Your task to perform on an android device: Clear all items from cart on amazon.com. Search for alienware area 51 on amazon.com, select the first entry, and add it to the cart. Image 0: 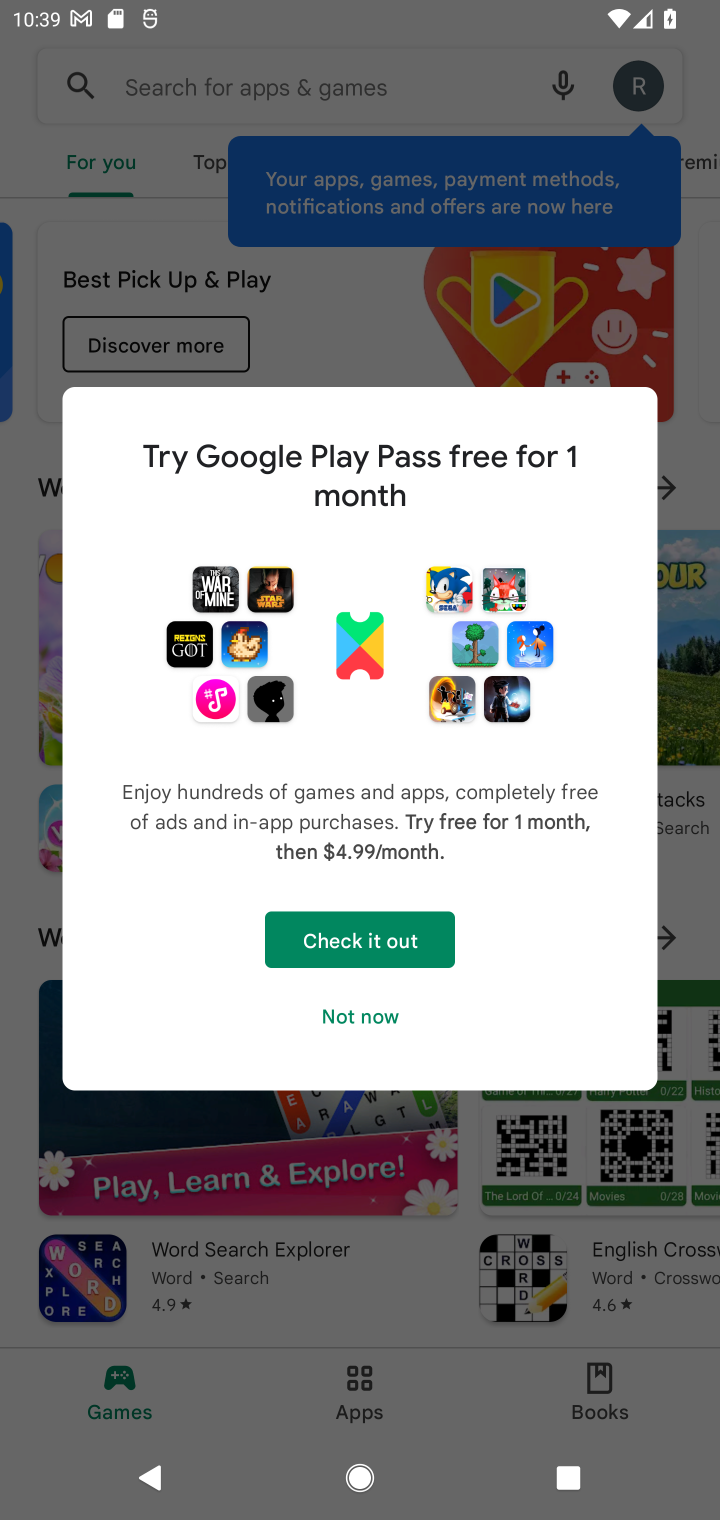
Step 0: press home button
Your task to perform on an android device: Clear all items from cart on amazon.com. Search for alienware area 51 on amazon.com, select the first entry, and add it to the cart. Image 1: 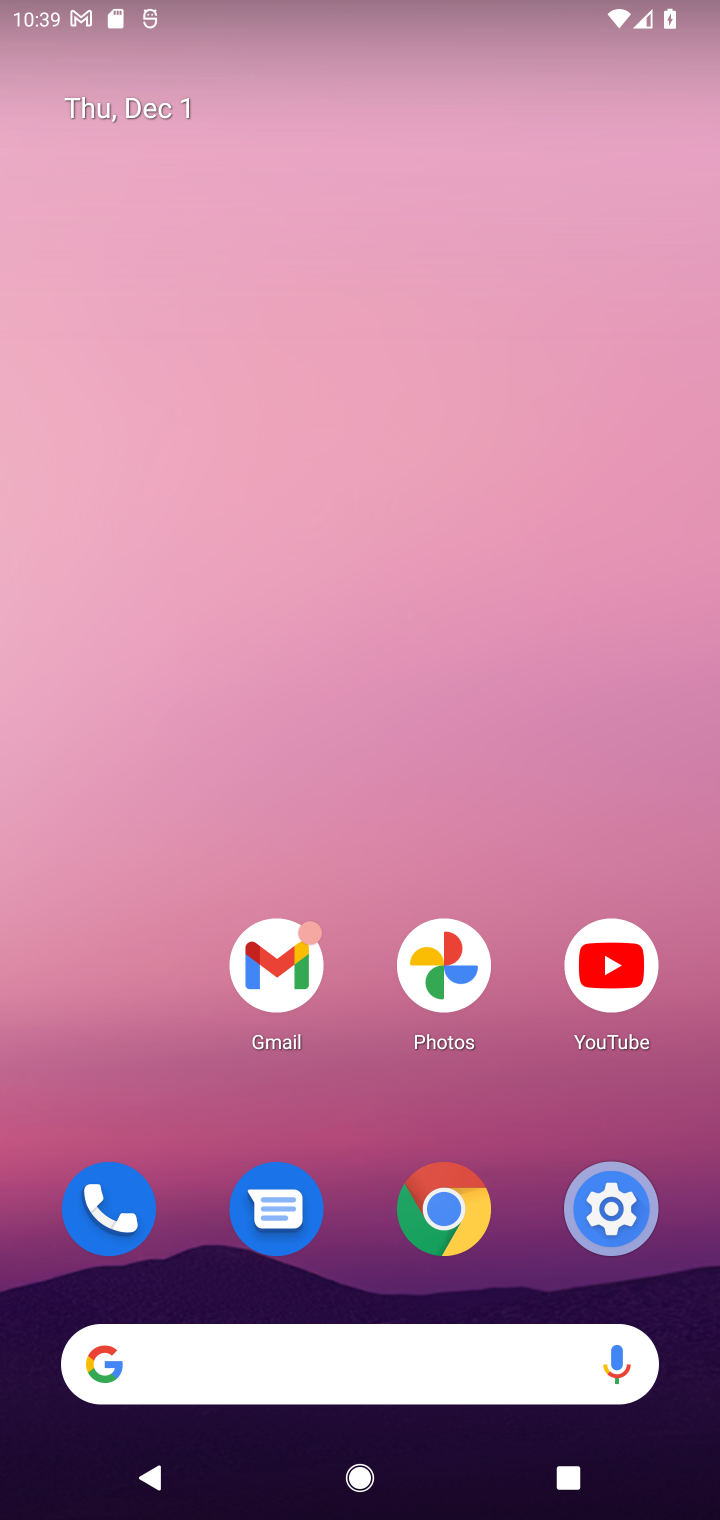
Step 1: click (466, 1199)
Your task to perform on an android device: Clear all items from cart on amazon.com. Search for alienware area 51 on amazon.com, select the first entry, and add it to the cart. Image 2: 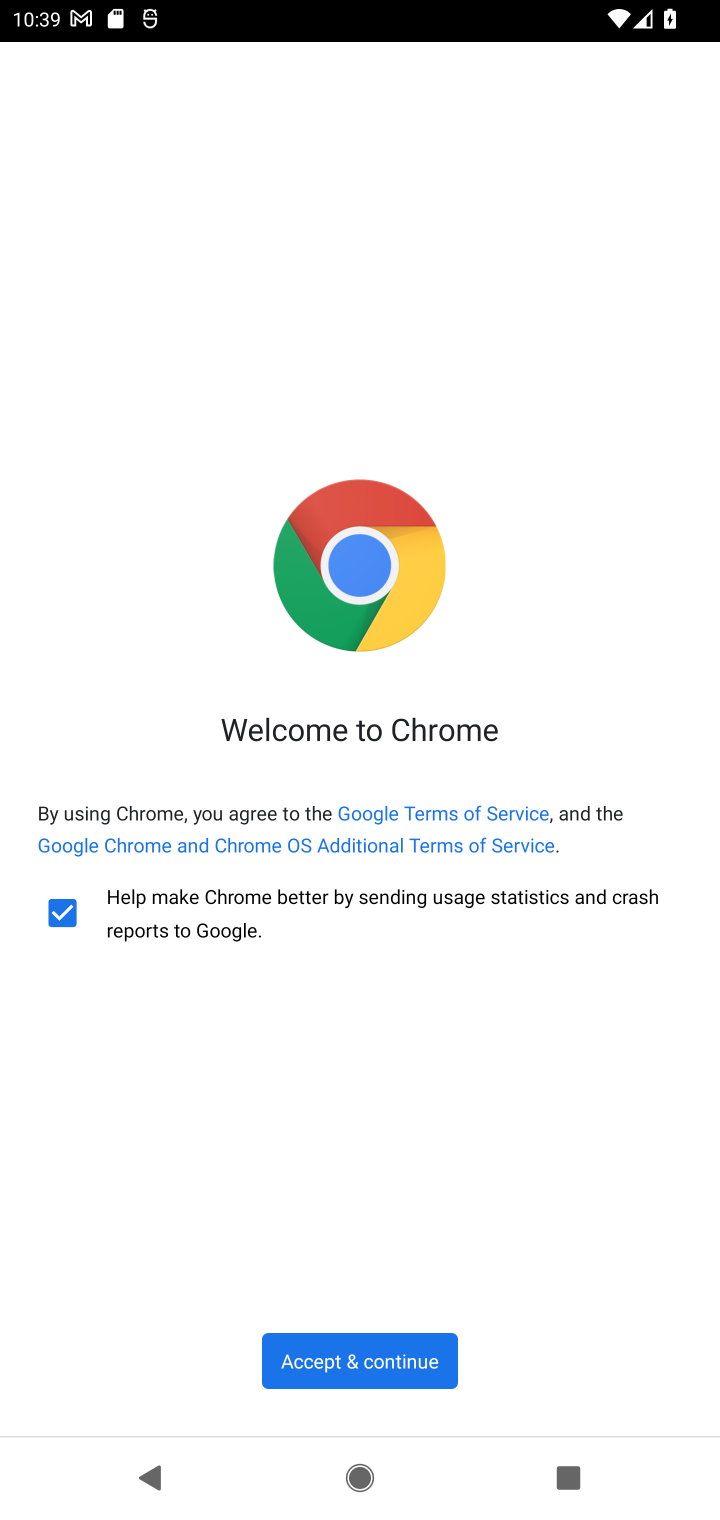
Step 2: click (366, 1358)
Your task to perform on an android device: Clear all items from cart on amazon.com. Search for alienware area 51 on amazon.com, select the first entry, and add it to the cart. Image 3: 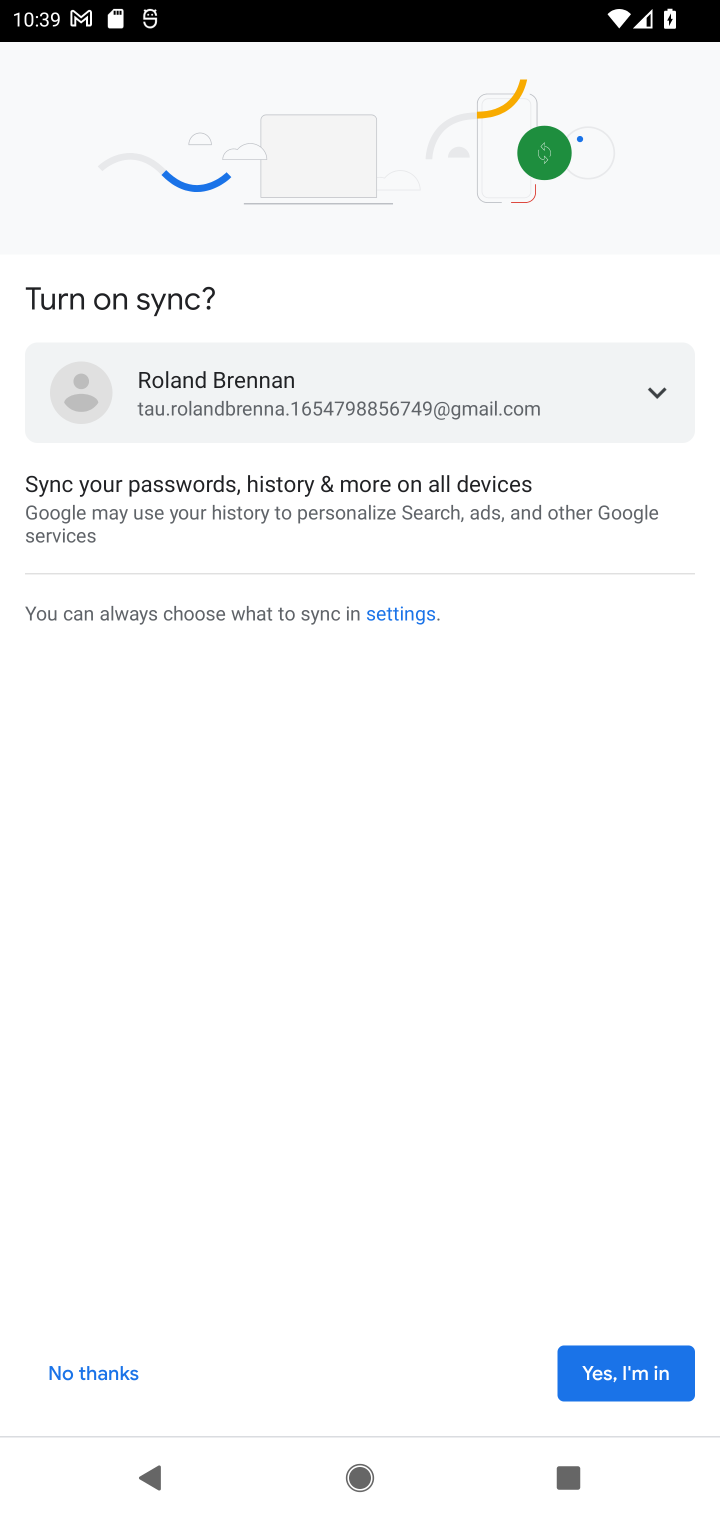
Step 3: click (634, 1371)
Your task to perform on an android device: Clear all items from cart on amazon.com. Search for alienware area 51 on amazon.com, select the first entry, and add it to the cart. Image 4: 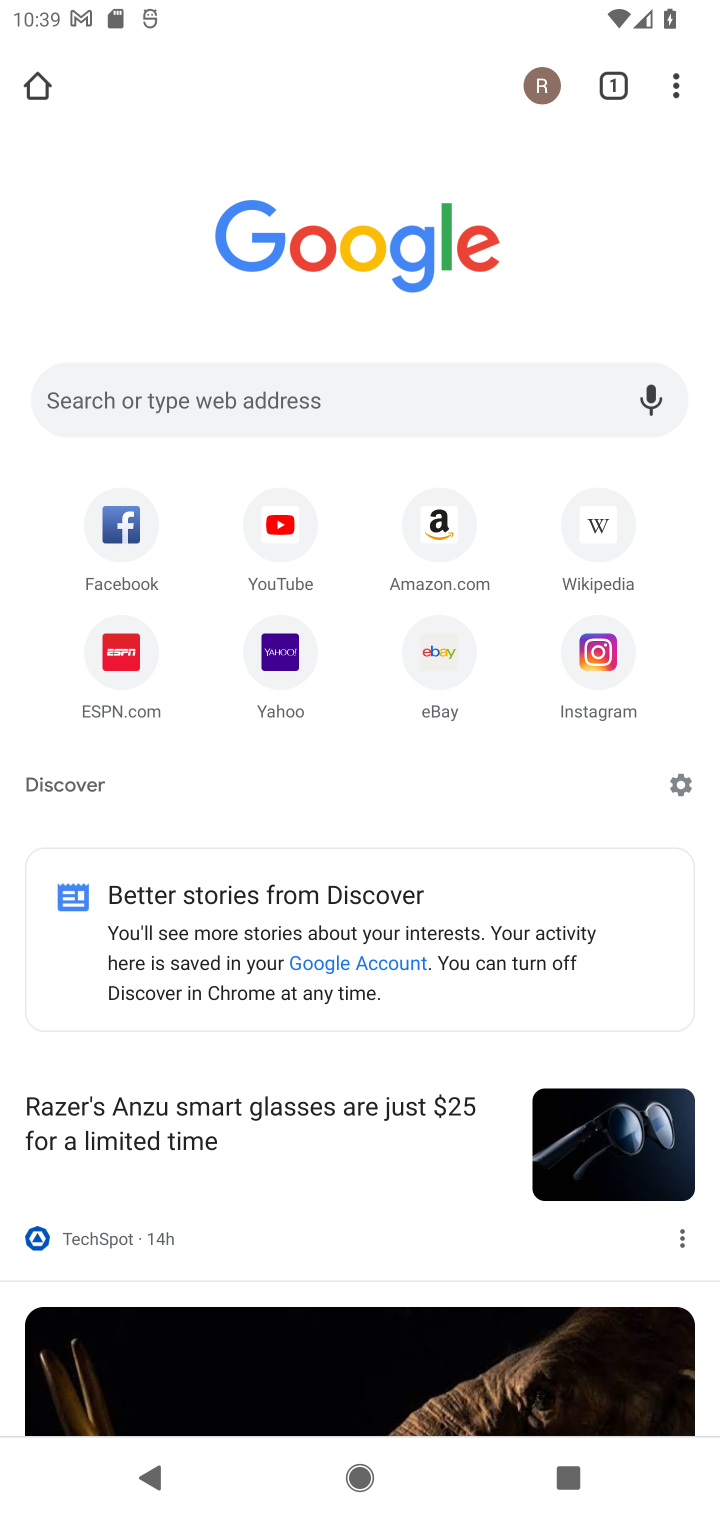
Step 4: click (309, 388)
Your task to perform on an android device: Clear all items from cart on amazon.com. Search for alienware area 51 on amazon.com, select the first entry, and add it to the cart. Image 5: 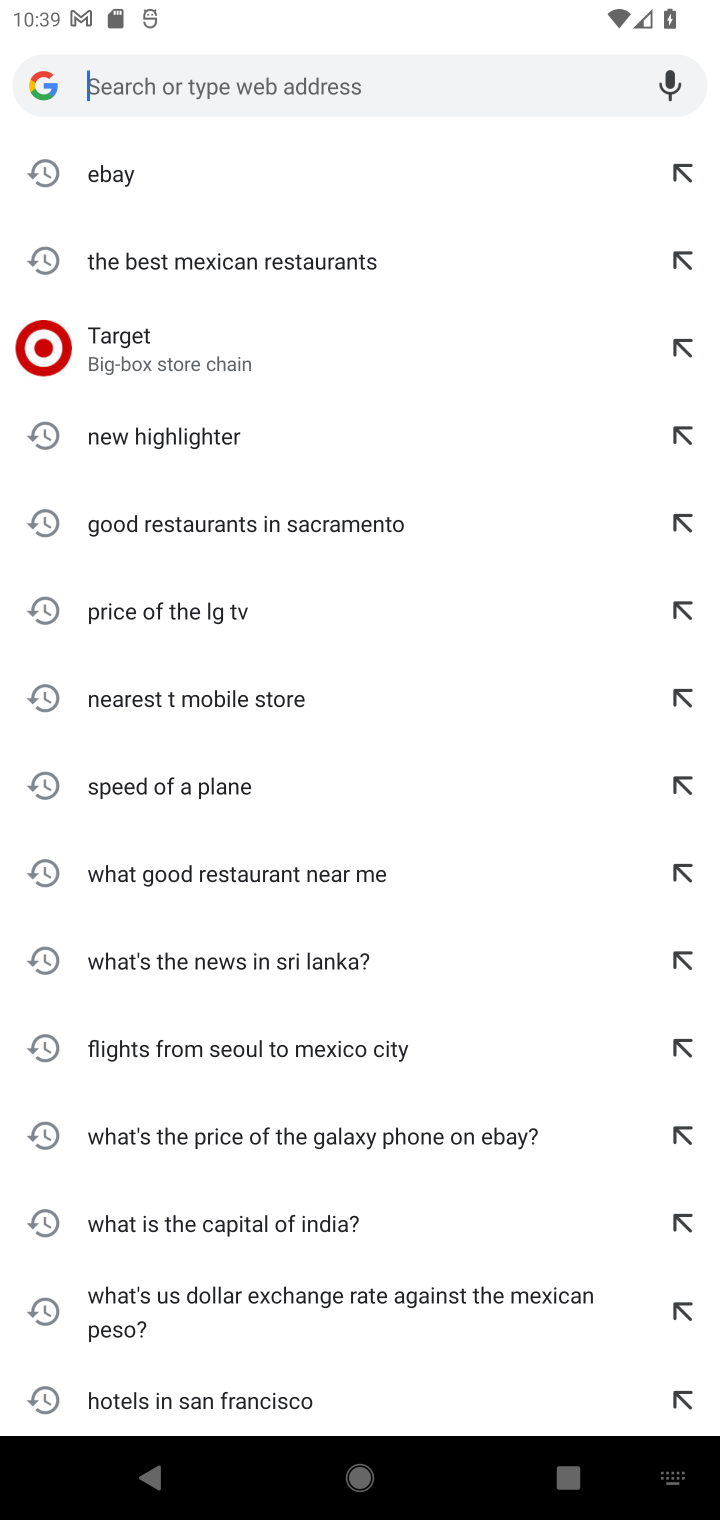
Step 5: type "amazon.com"
Your task to perform on an android device: Clear all items from cart on amazon.com. Search for alienware area 51 on amazon.com, select the first entry, and add it to the cart. Image 6: 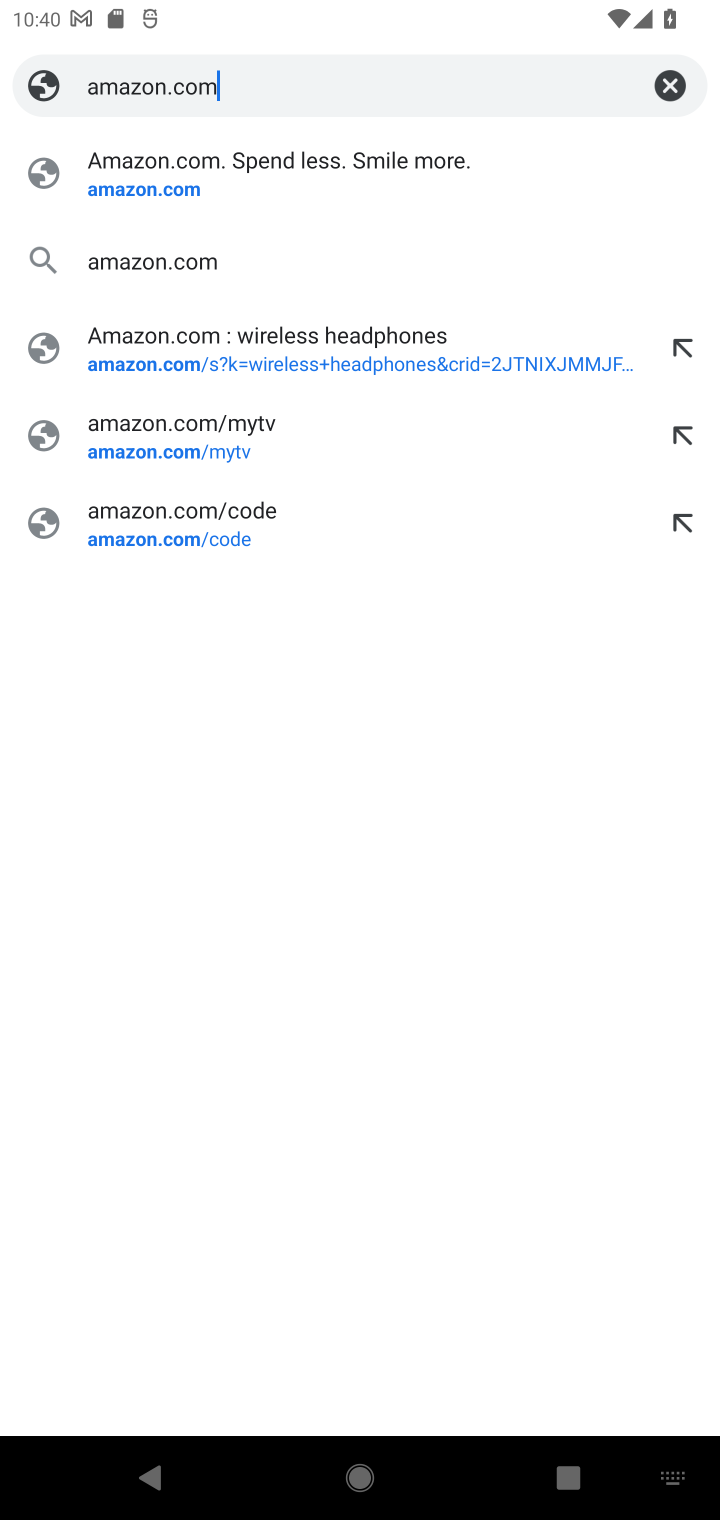
Step 6: click (164, 169)
Your task to perform on an android device: Clear all items from cart on amazon.com. Search for alienware area 51 on amazon.com, select the first entry, and add it to the cart. Image 7: 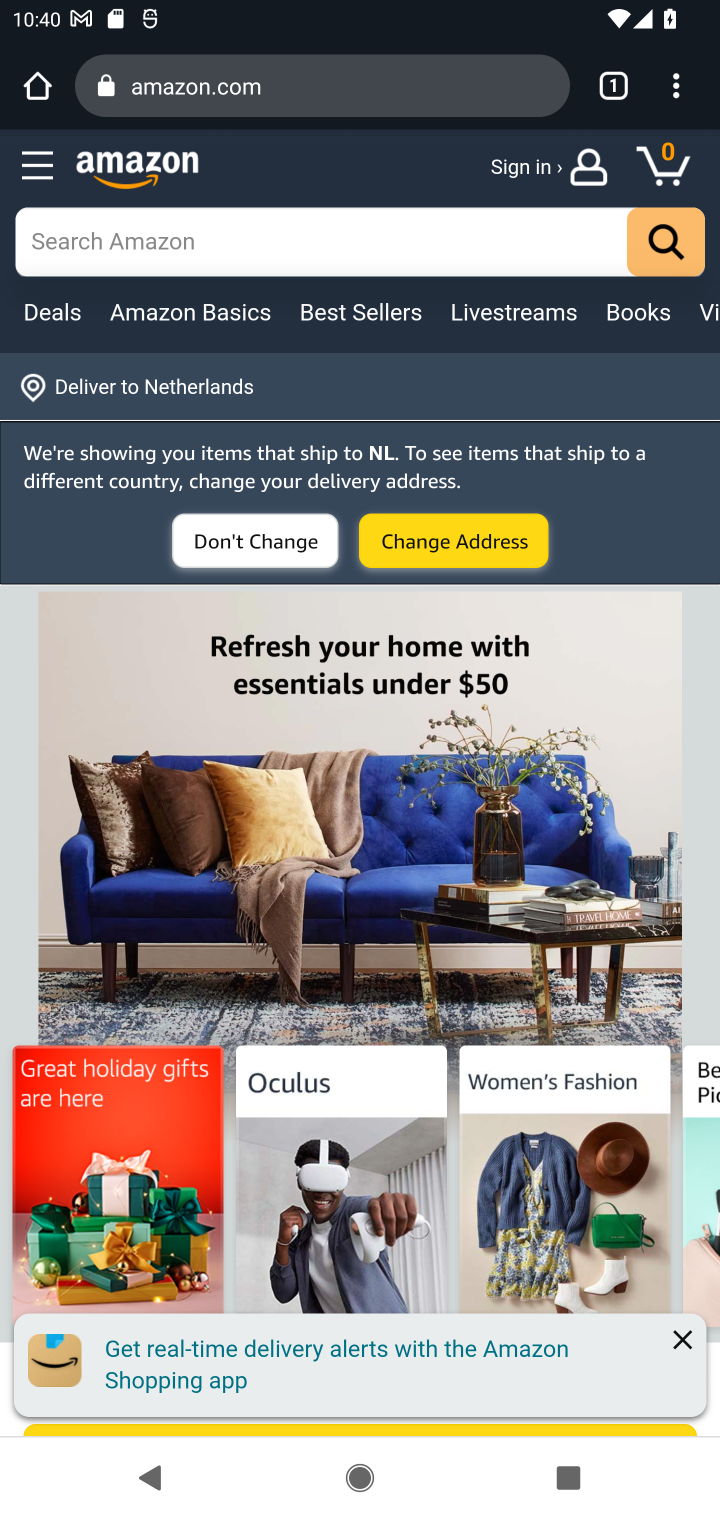
Step 7: click (372, 248)
Your task to perform on an android device: Clear all items from cart on amazon.com. Search for alienware area 51 on amazon.com, select the first entry, and add it to the cart. Image 8: 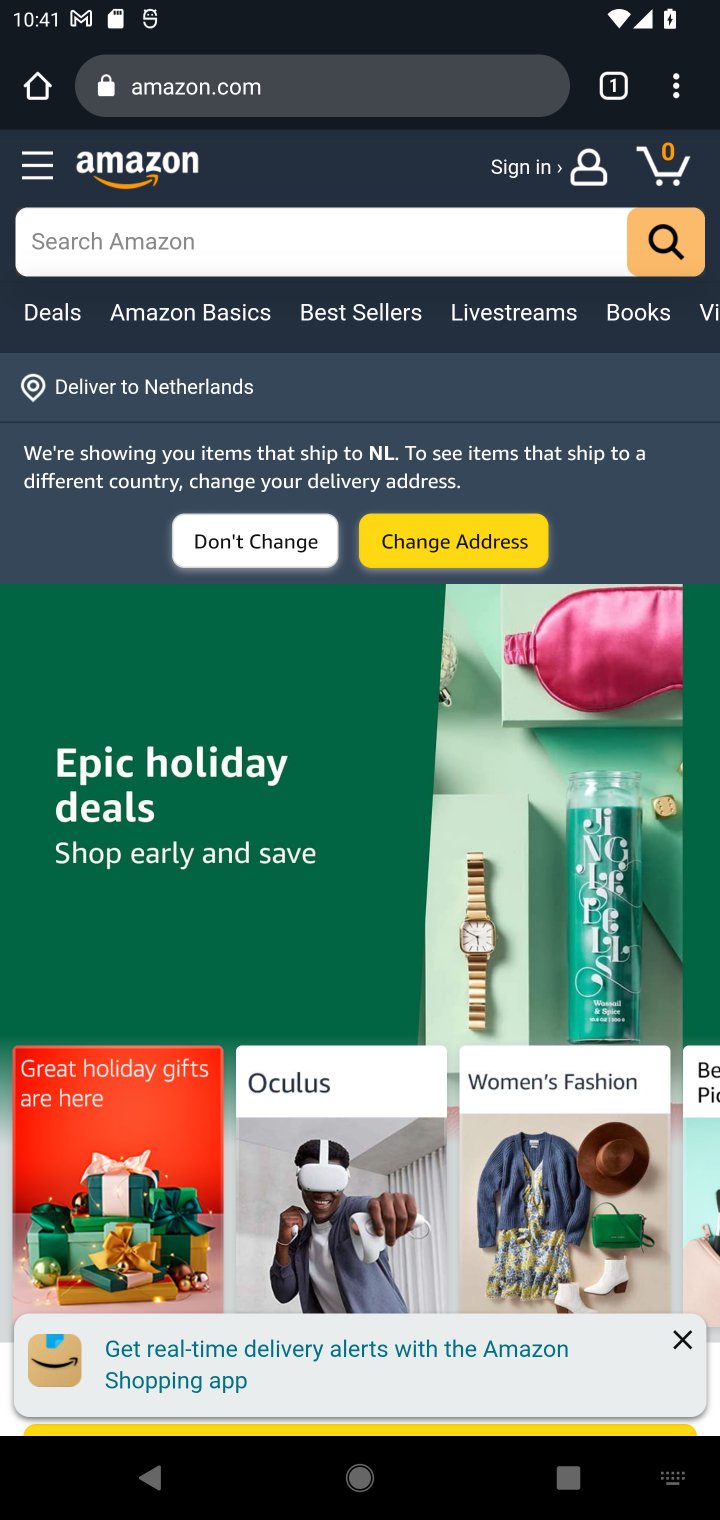
Step 8: type "alienware area 51"
Your task to perform on an android device: Clear all items from cart on amazon.com. Search for alienware area 51 on amazon.com, select the first entry, and add it to the cart. Image 9: 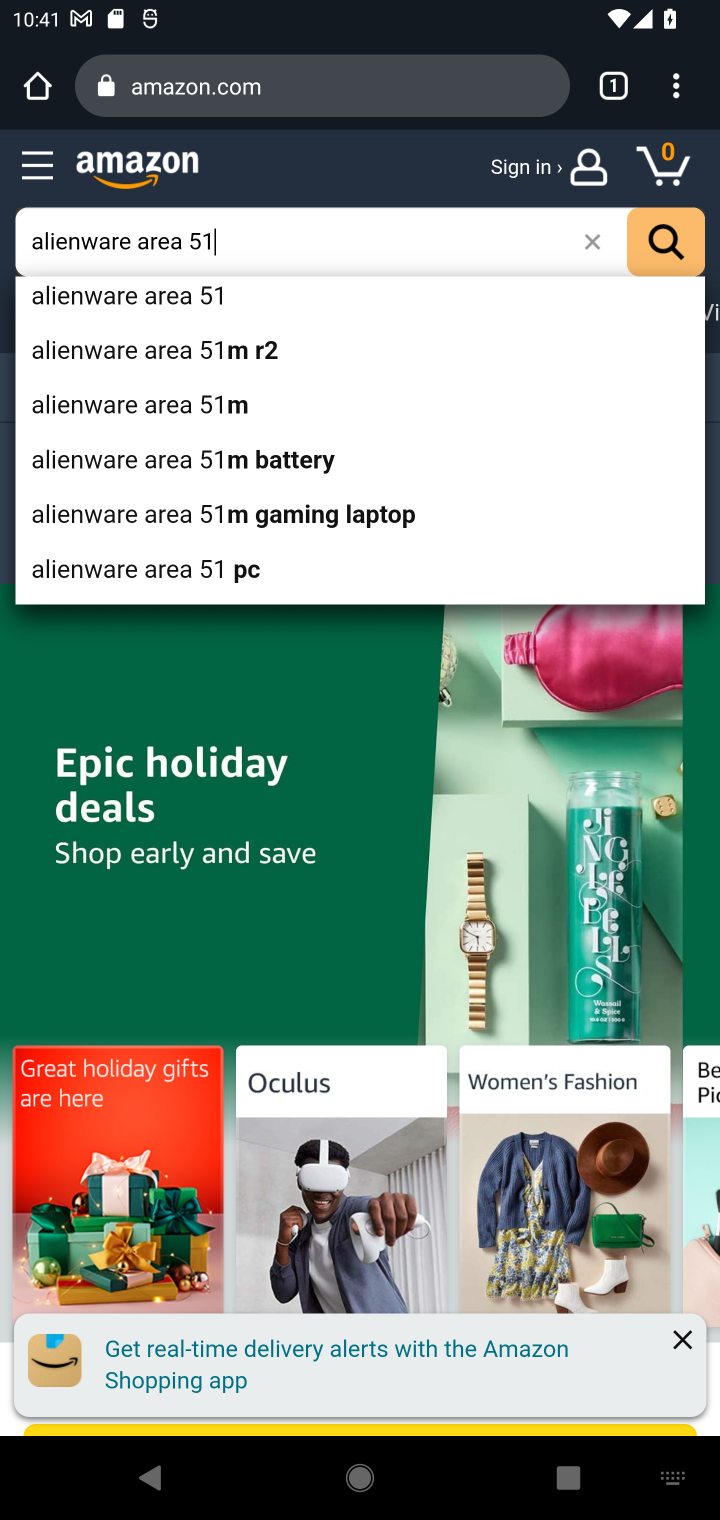
Step 9: click (209, 299)
Your task to perform on an android device: Clear all items from cart on amazon.com. Search for alienware area 51 on amazon.com, select the first entry, and add it to the cart. Image 10: 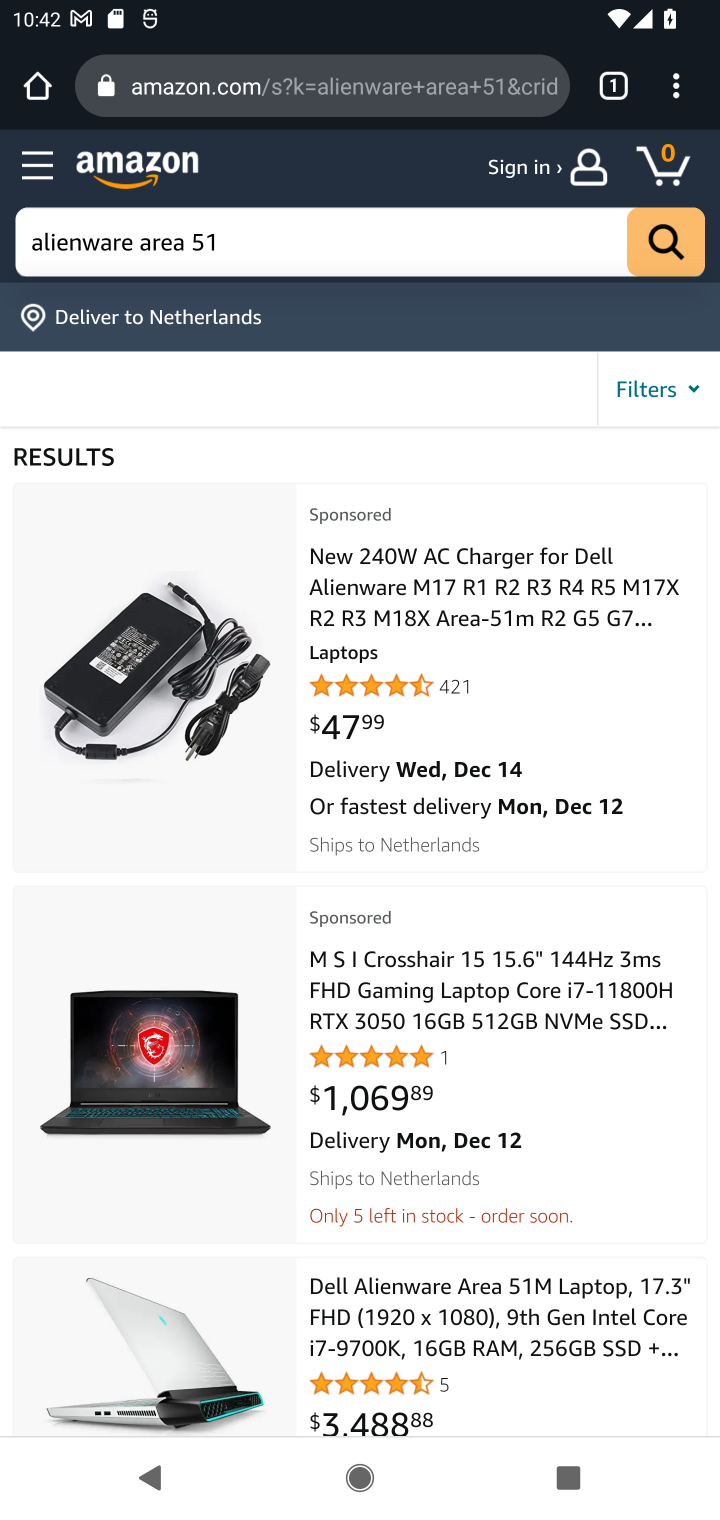
Step 10: click (448, 644)
Your task to perform on an android device: Clear all items from cart on amazon.com. Search for alienware area 51 on amazon.com, select the first entry, and add it to the cart. Image 11: 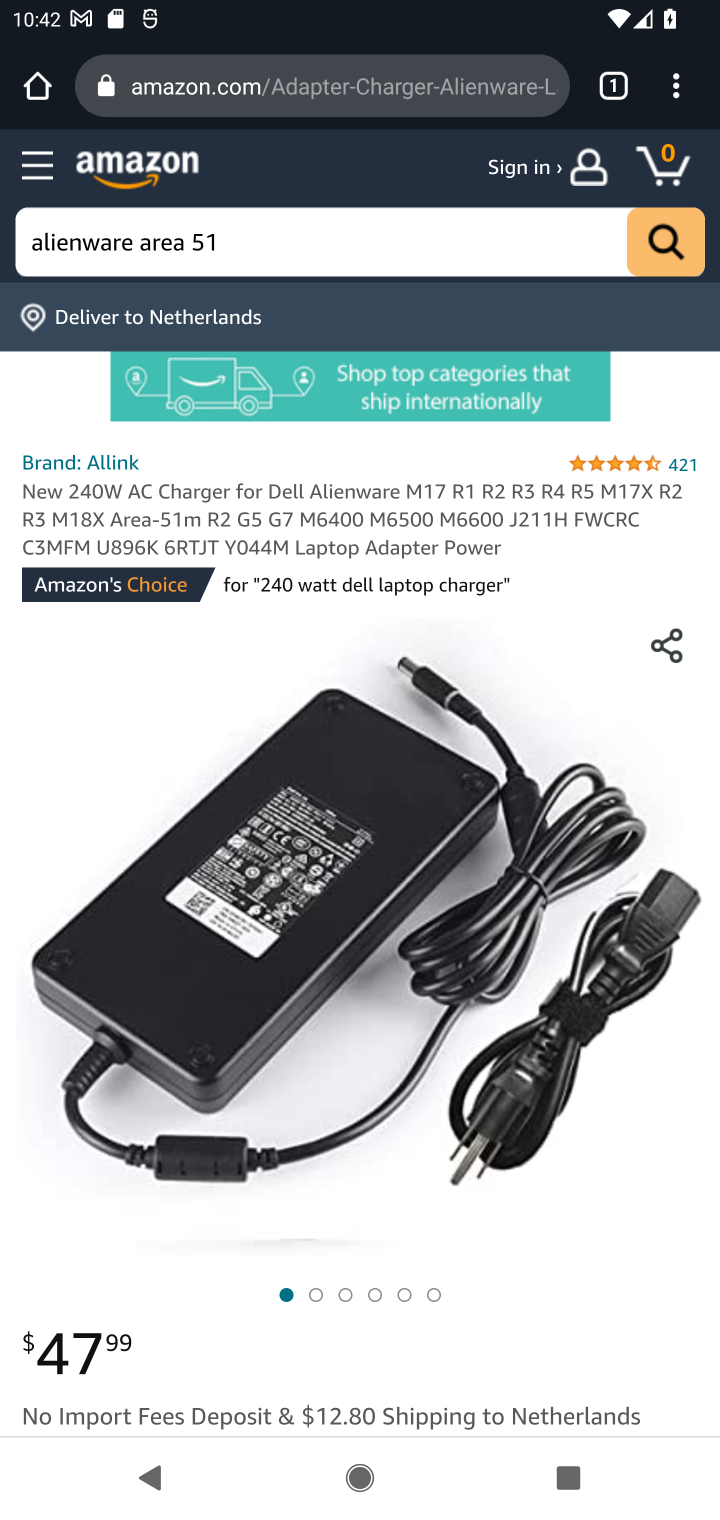
Step 11: drag from (370, 1338) to (313, 413)
Your task to perform on an android device: Clear all items from cart on amazon.com. Search for alienware area 51 on amazon.com, select the first entry, and add it to the cart. Image 12: 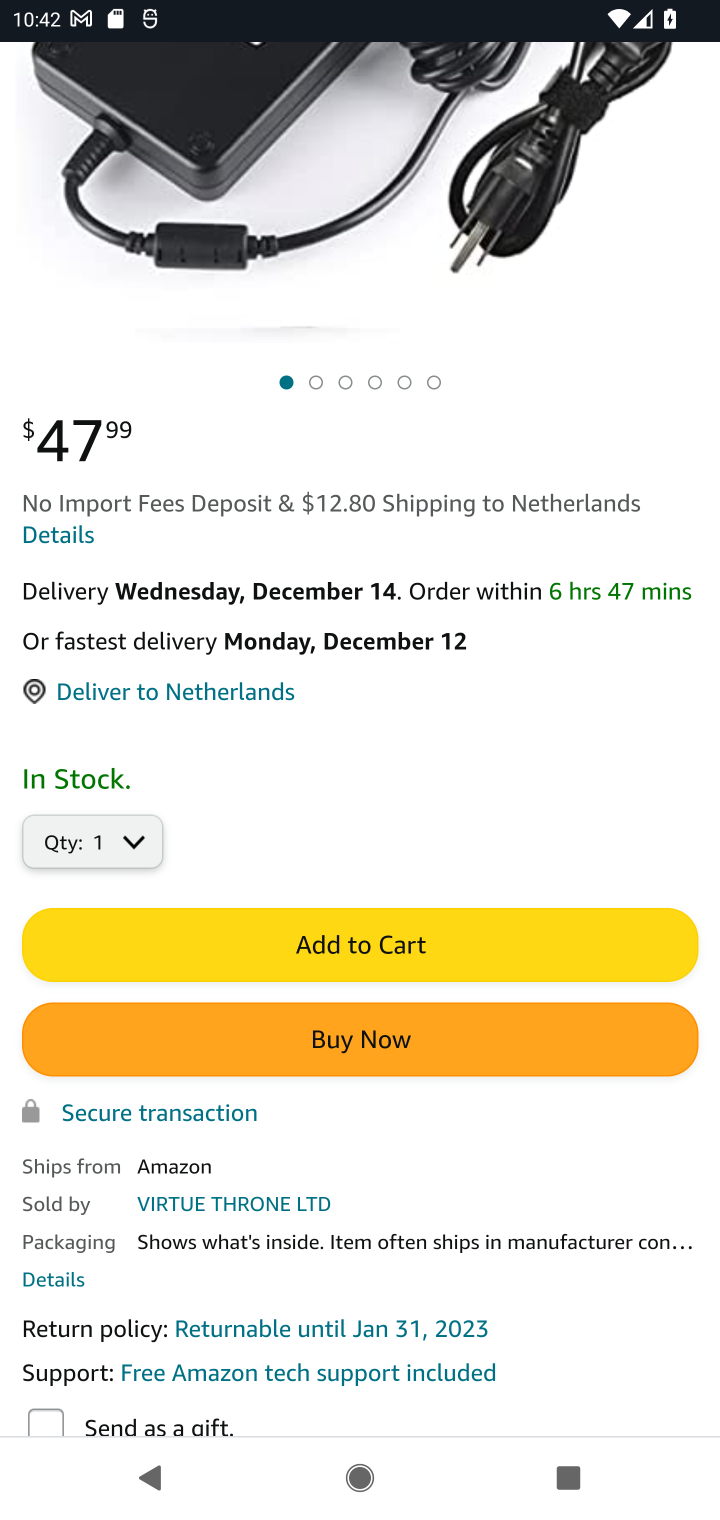
Step 12: click (344, 947)
Your task to perform on an android device: Clear all items from cart on amazon.com. Search for alienware area 51 on amazon.com, select the first entry, and add it to the cart. Image 13: 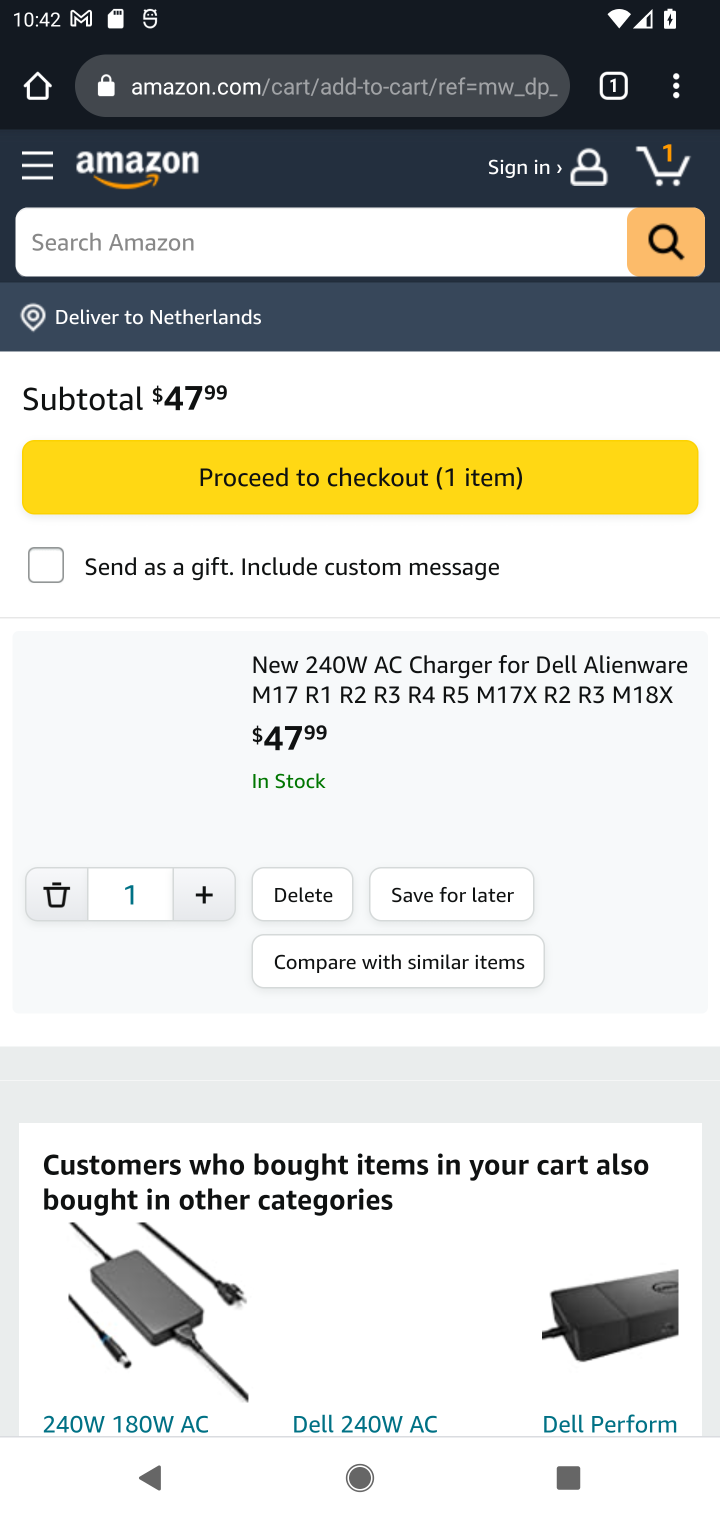
Step 13: task complete